Your task to perform on an android device: refresh tabs in the chrome app Image 0: 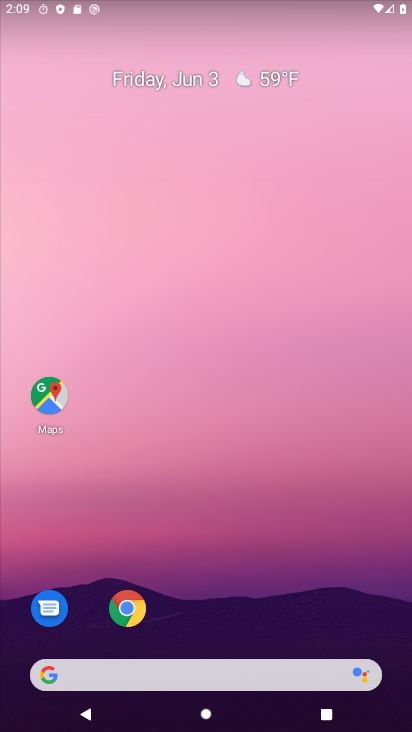
Step 0: click (103, 608)
Your task to perform on an android device: refresh tabs in the chrome app Image 1: 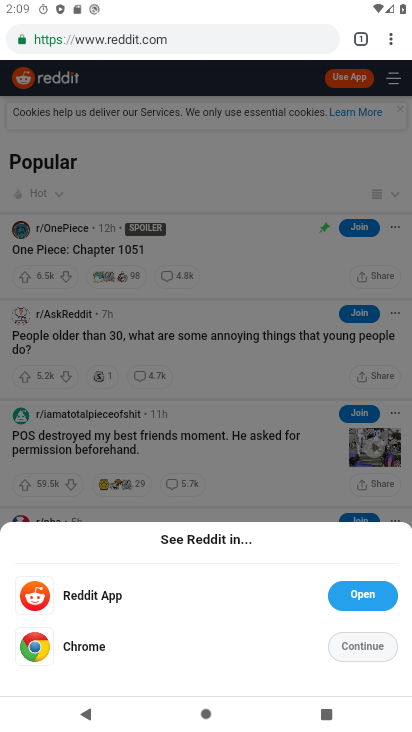
Step 1: click (384, 35)
Your task to perform on an android device: refresh tabs in the chrome app Image 2: 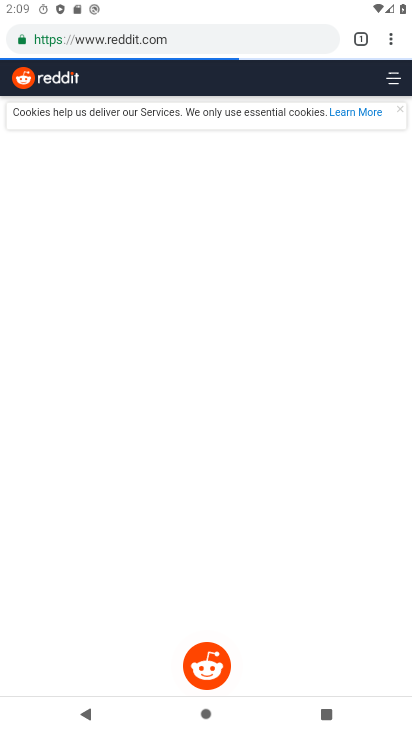
Step 2: task complete